Your task to perform on an android device: Do I have any events tomorrow? Image 0: 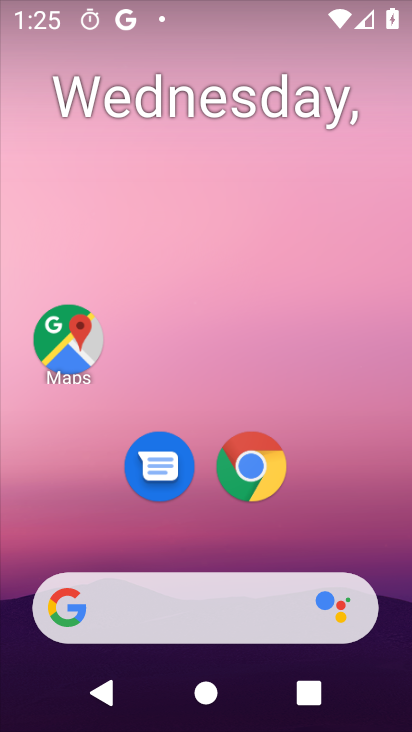
Step 0: drag from (285, 475) to (298, 235)
Your task to perform on an android device: Do I have any events tomorrow? Image 1: 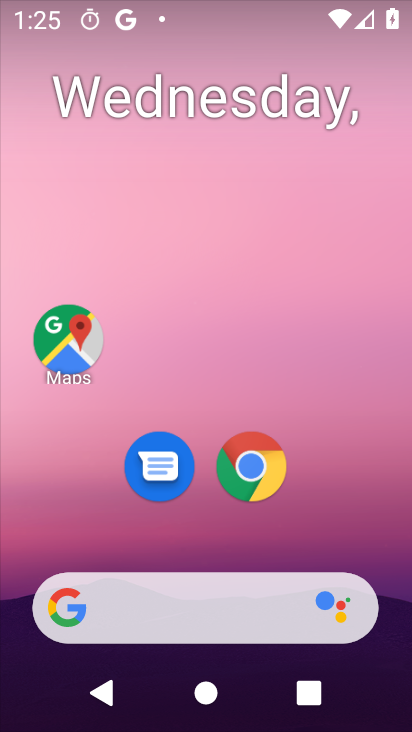
Step 1: drag from (380, 515) to (330, 263)
Your task to perform on an android device: Do I have any events tomorrow? Image 2: 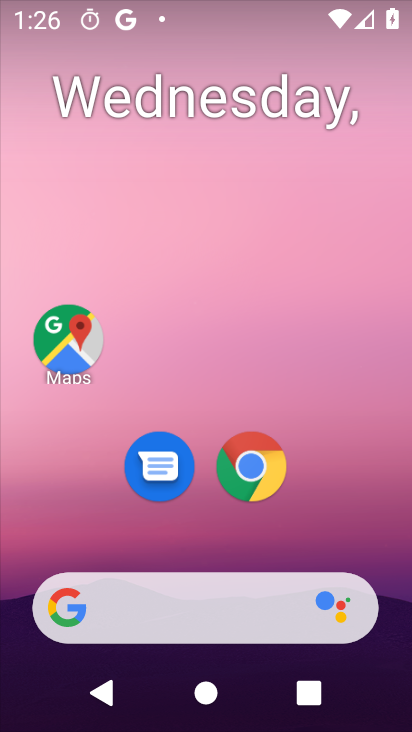
Step 2: drag from (329, 529) to (277, 198)
Your task to perform on an android device: Do I have any events tomorrow? Image 3: 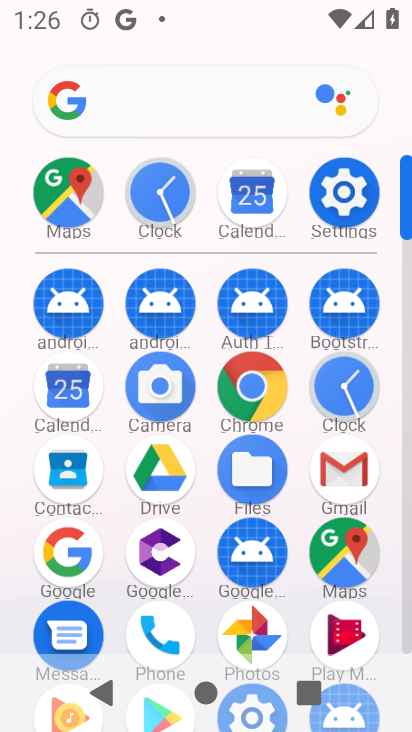
Step 3: click (148, 369)
Your task to perform on an android device: Do I have any events tomorrow? Image 4: 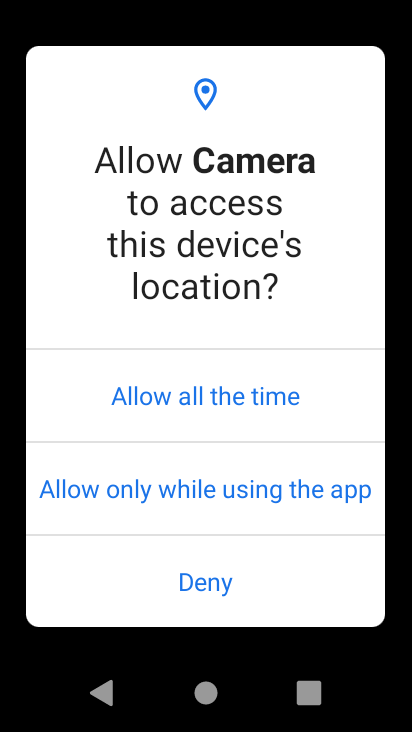
Step 4: press home button
Your task to perform on an android device: Do I have any events tomorrow? Image 5: 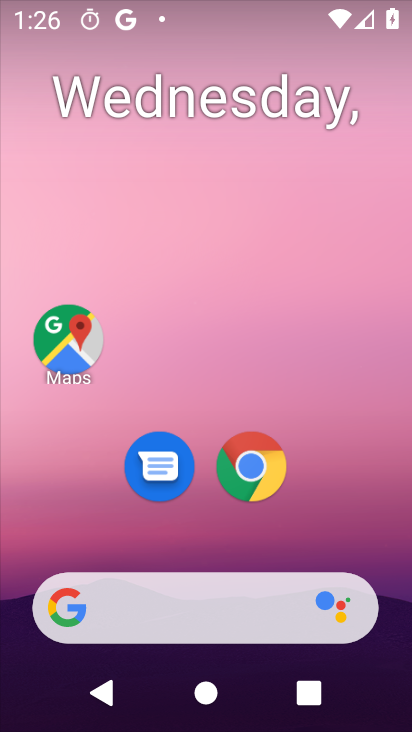
Step 5: drag from (281, 336) to (246, 66)
Your task to perform on an android device: Do I have any events tomorrow? Image 6: 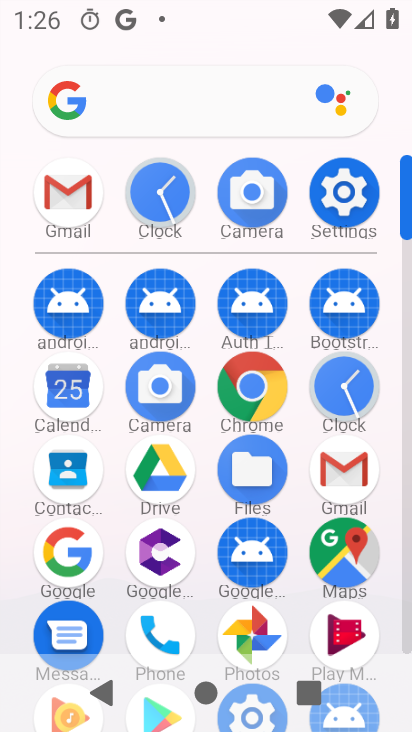
Step 6: click (51, 387)
Your task to perform on an android device: Do I have any events tomorrow? Image 7: 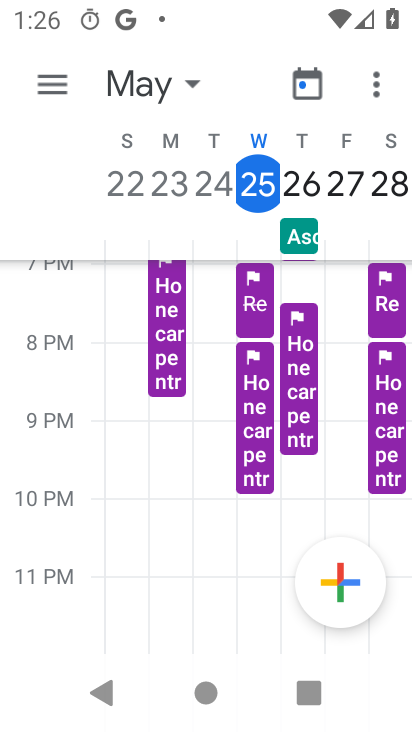
Step 7: click (280, 183)
Your task to perform on an android device: Do I have any events tomorrow? Image 8: 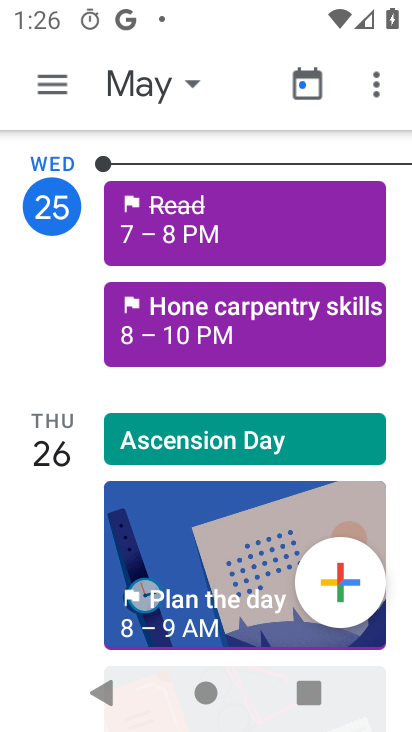
Step 8: drag from (146, 521) to (162, 165)
Your task to perform on an android device: Do I have any events tomorrow? Image 9: 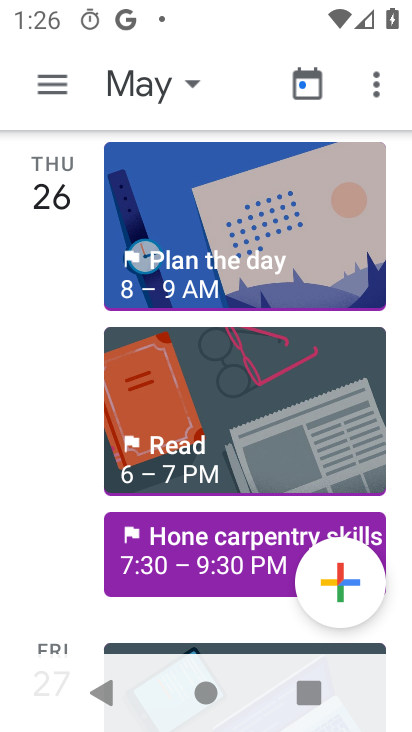
Step 9: click (46, 87)
Your task to perform on an android device: Do I have any events tomorrow? Image 10: 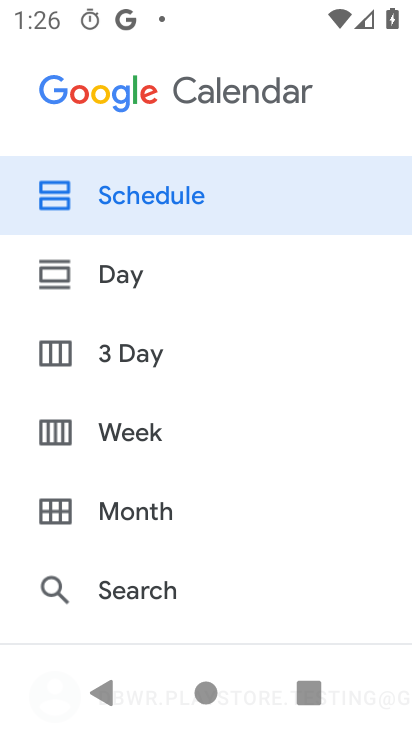
Step 10: click (90, 510)
Your task to perform on an android device: Do I have any events tomorrow? Image 11: 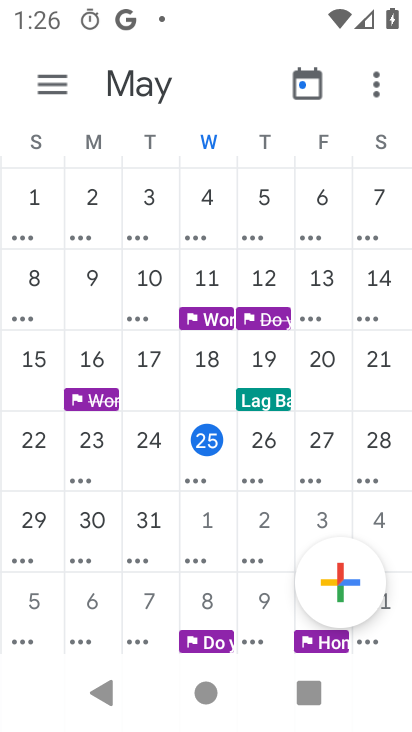
Step 11: click (253, 448)
Your task to perform on an android device: Do I have any events tomorrow? Image 12: 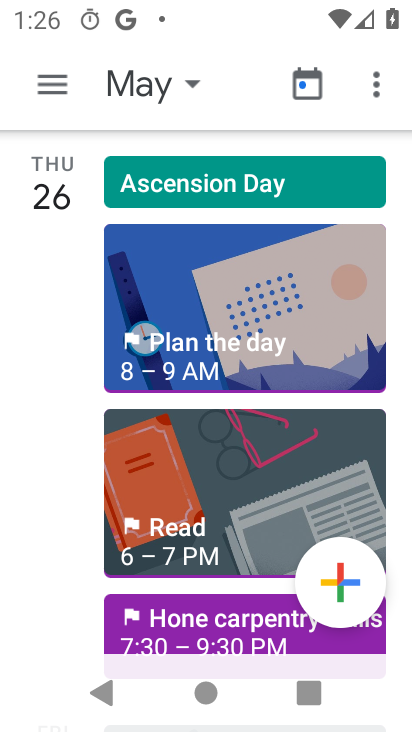
Step 12: task complete